Your task to perform on an android device: empty trash in the gmail app Image 0: 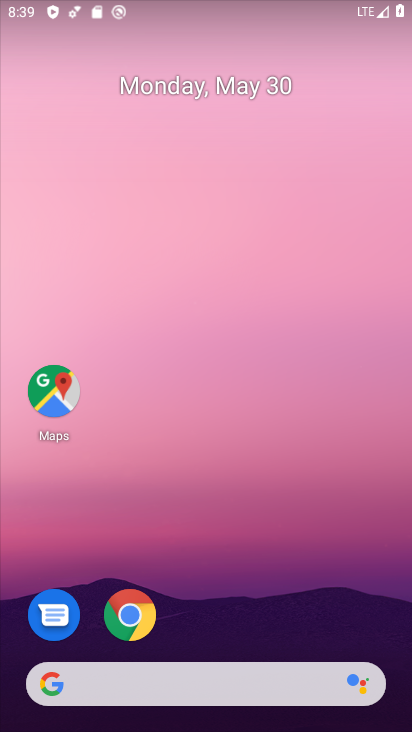
Step 0: drag from (109, 728) to (222, 18)
Your task to perform on an android device: empty trash in the gmail app Image 1: 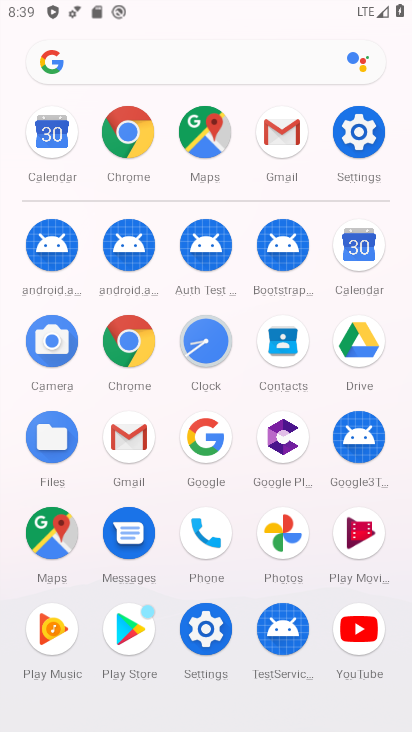
Step 1: click (282, 145)
Your task to perform on an android device: empty trash in the gmail app Image 2: 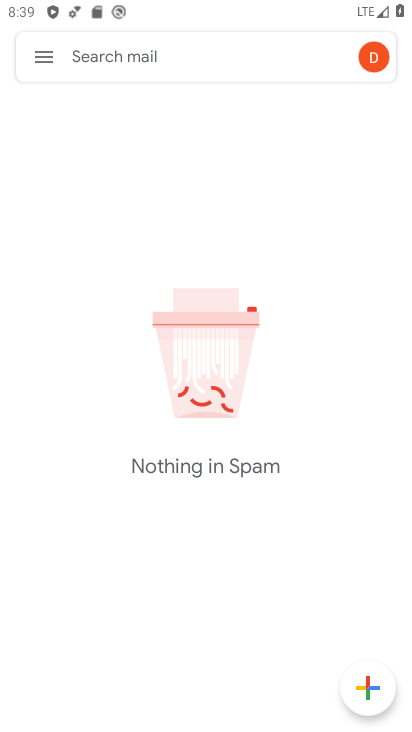
Step 2: click (41, 66)
Your task to perform on an android device: empty trash in the gmail app Image 3: 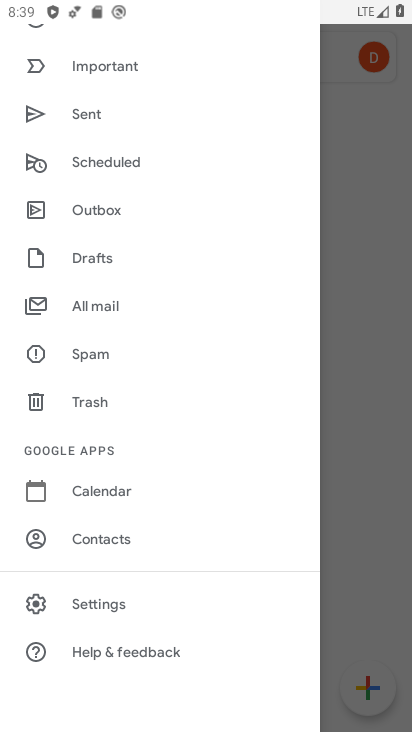
Step 3: click (76, 409)
Your task to perform on an android device: empty trash in the gmail app Image 4: 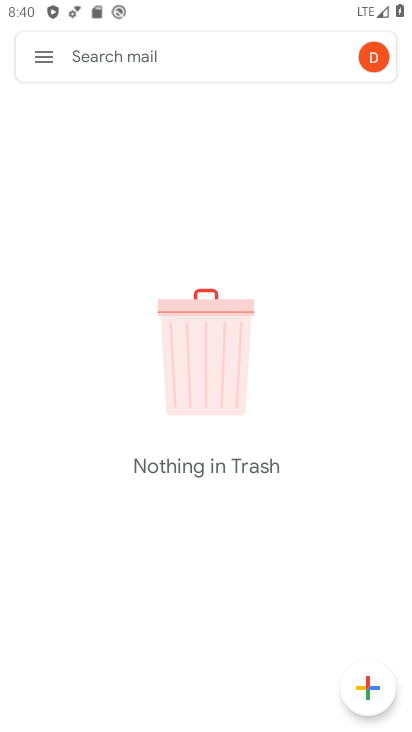
Step 4: task complete